Your task to perform on an android device: turn vacation reply on in the gmail app Image 0: 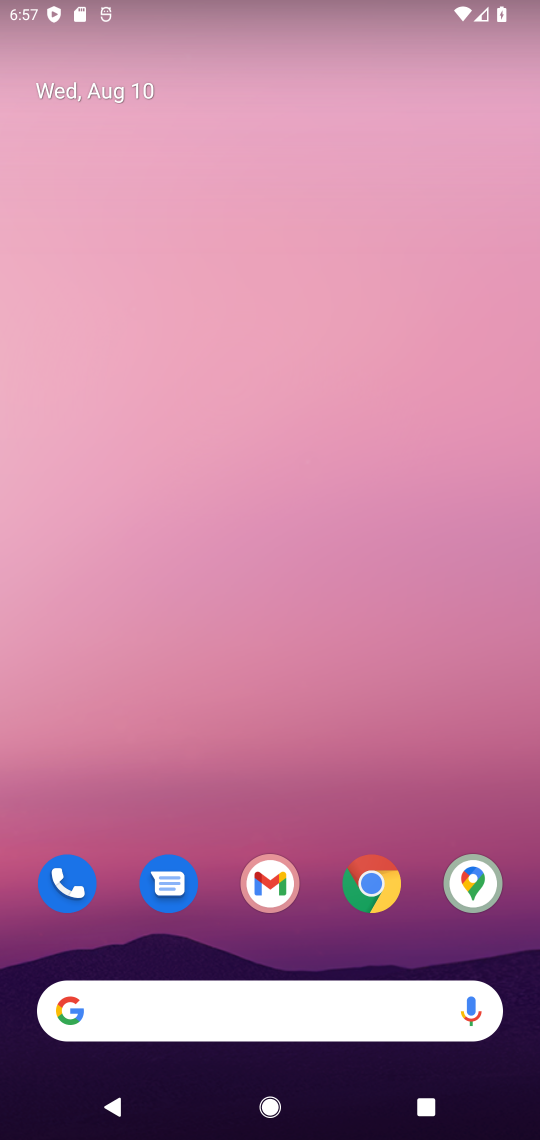
Step 0: click (268, 897)
Your task to perform on an android device: turn vacation reply on in the gmail app Image 1: 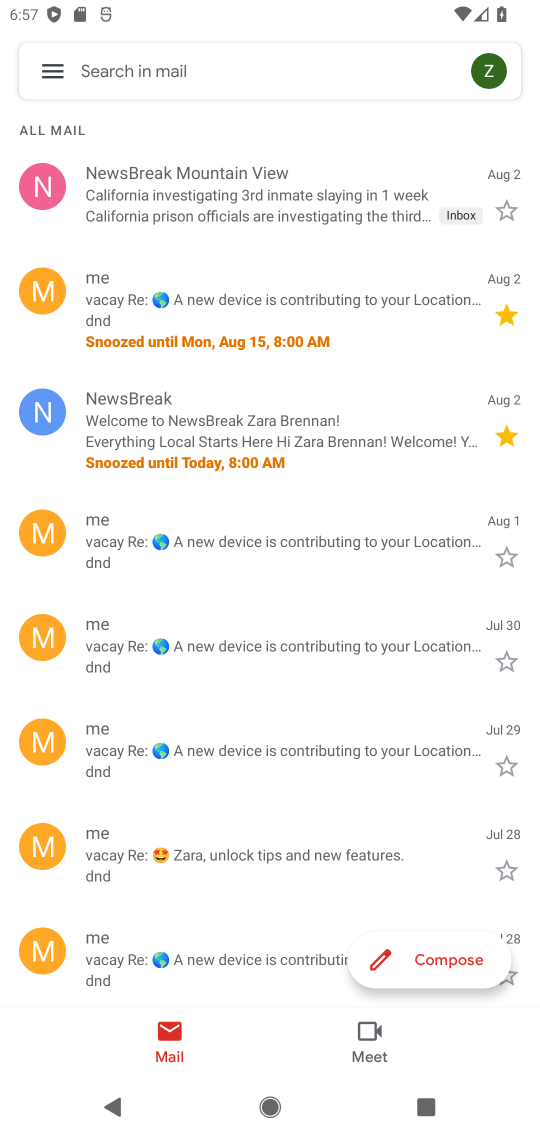
Step 1: click (227, 70)
Your task to perform on an android device: turn vacation reply on in the gmail app Image 2: 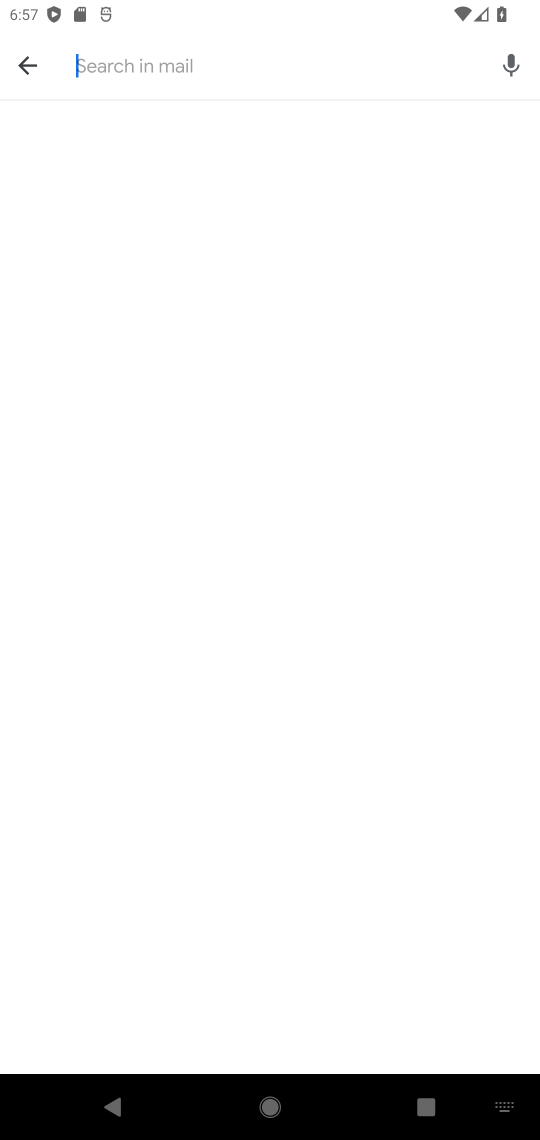
Step 2: click (30, 66)
Your task to perform on an android device: turn vacation reply on in the gmail app Image 3: 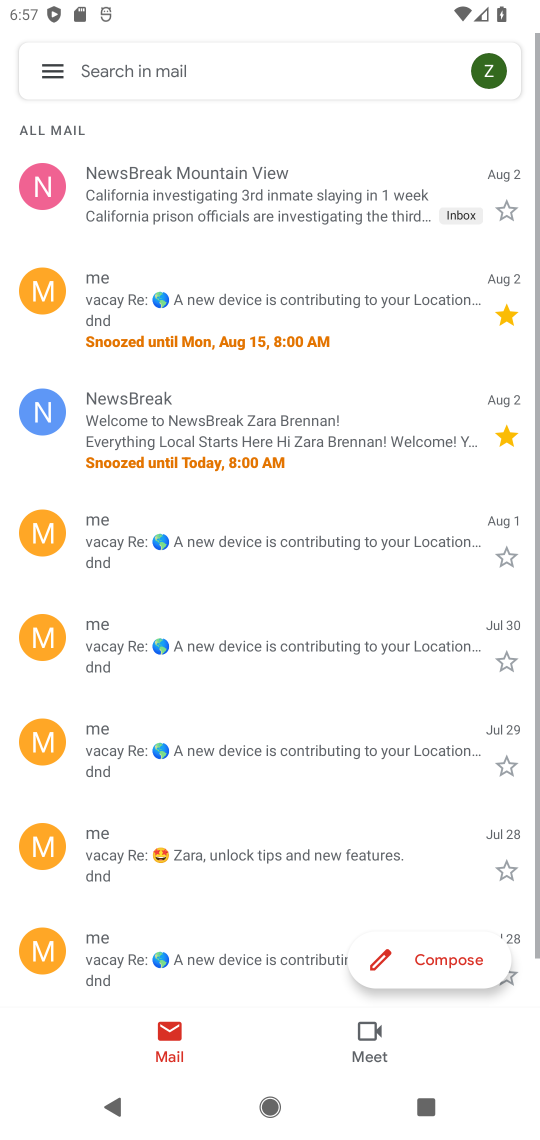
Step 3: click (30, 66)
Your task to perform on an android device: turn vacation reply on in the gmail app Image 4: 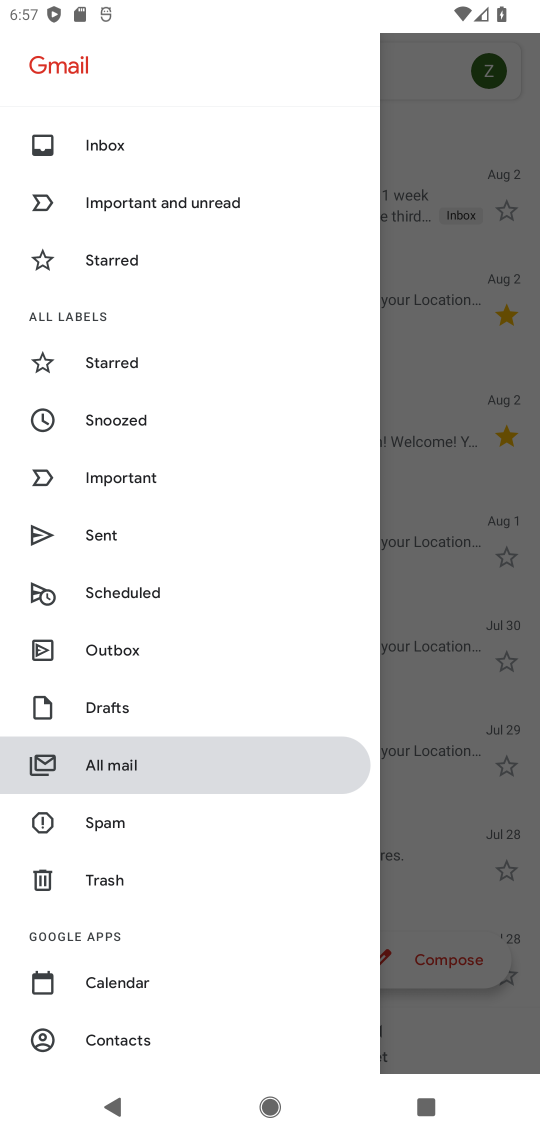
Step 4: drag from (188, 1027) to (212, 646)
Your task to perform on an android device: turn vacation reply on in the gmail app Image 5: 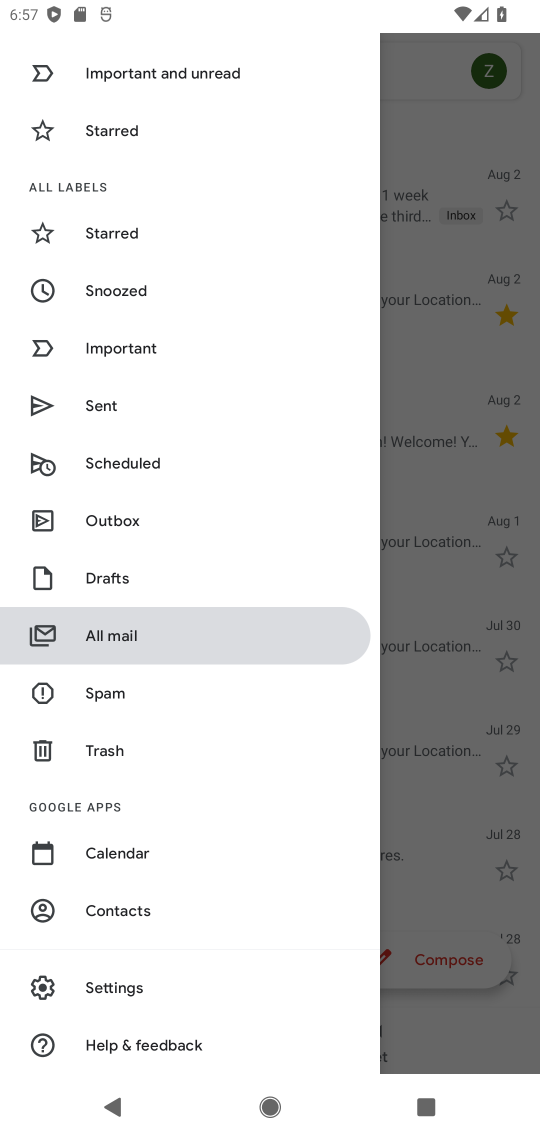
Step 5: click (146, 989)
Your task to perform on an android device: turn vacation reply on in the gmail app Image 6: 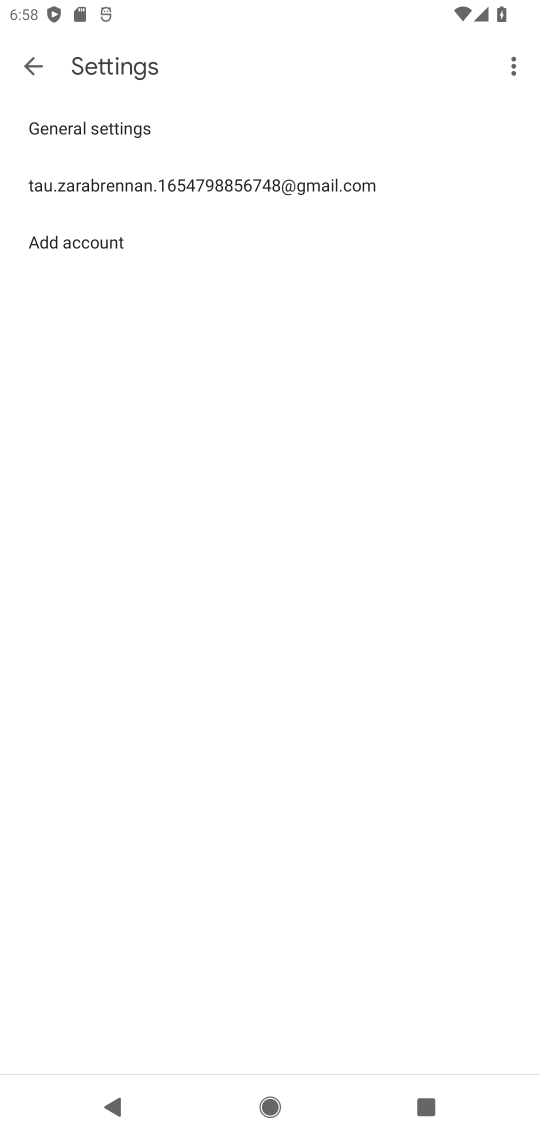
Step 6: click (185, 192)
Your task to perform on an android device: turn vacation reply on in the gmail app Image 7: 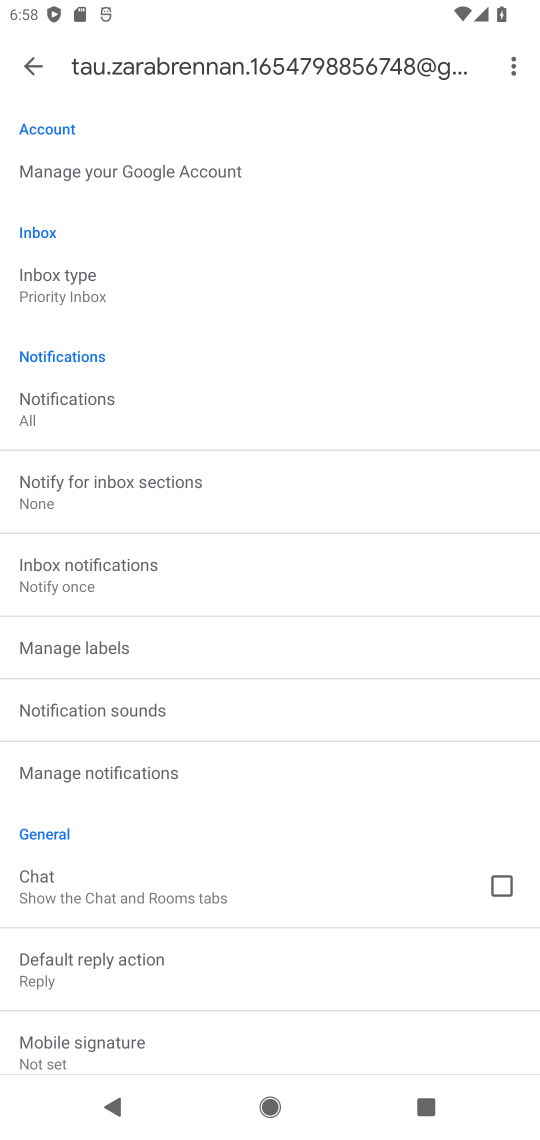
Step 7: drag from (238, 1002) to (48, 209)
Your task to perform on an android device: turn vacation reply on in the gmail app Image 8: 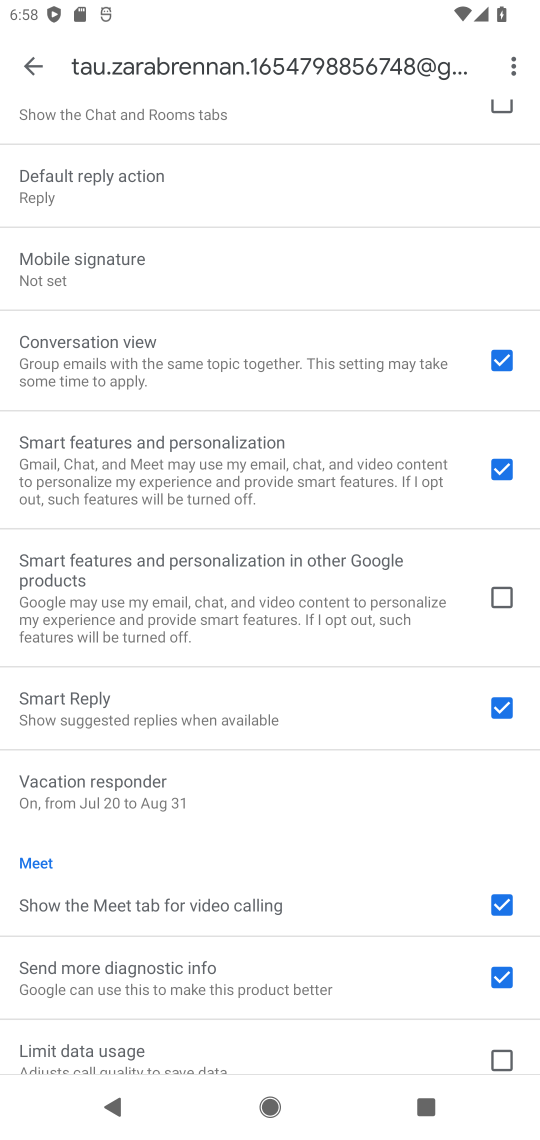
Step 8: drag from (306, 1044) to (325, 577)
Your task to perform on an android device: turn vacation reply on in the gmail app Image 9: 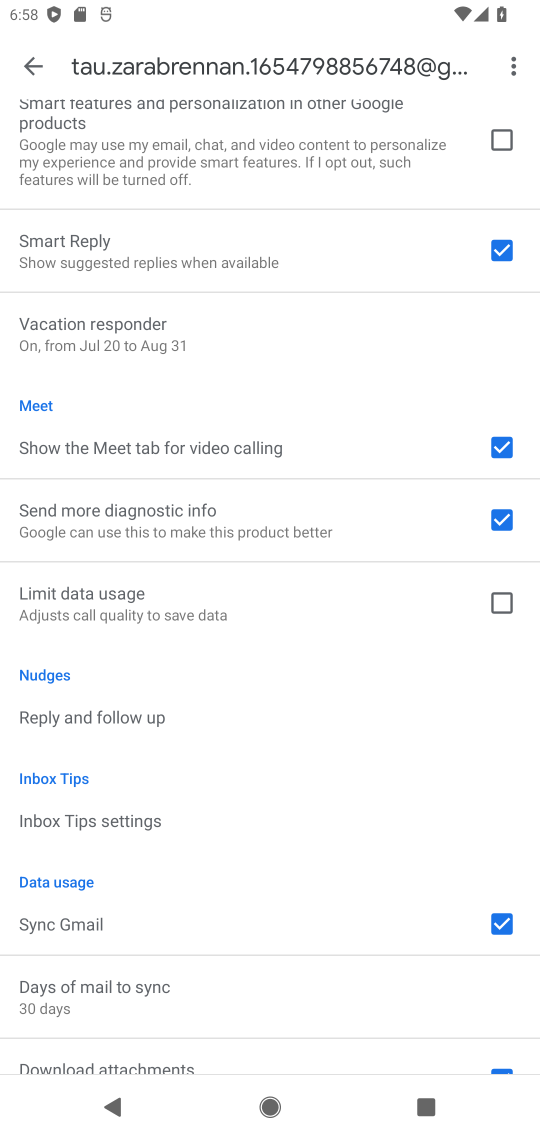
Step 9: click (170, 326)
Your task to perform on an android device: turn vacation reply on in the gmail app Image 10: 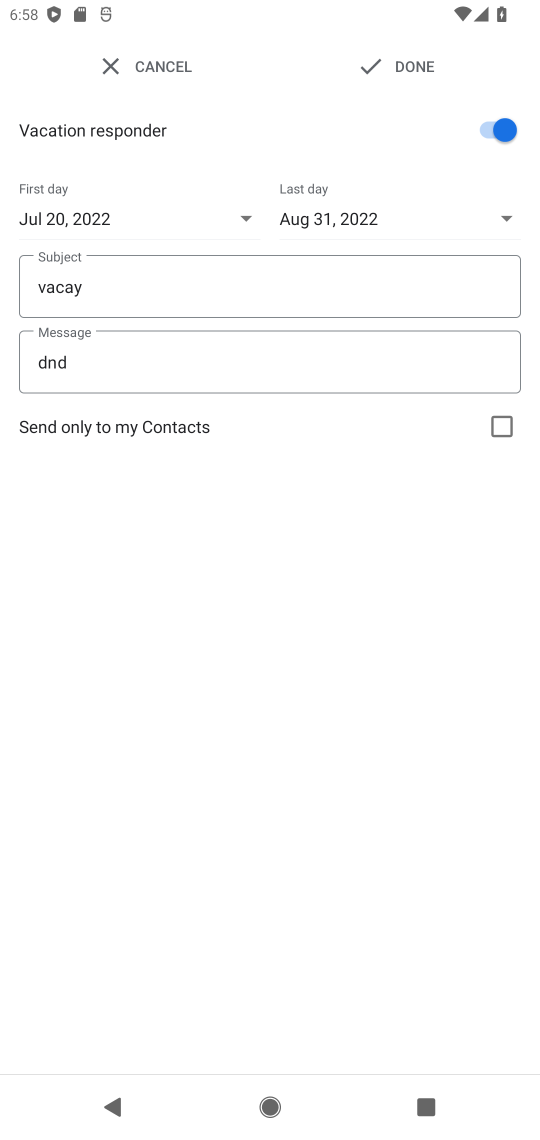
Step 10: click (420, 73)
Your task to perform on an android device: turn vacation reply on in the gmail app Image 11: 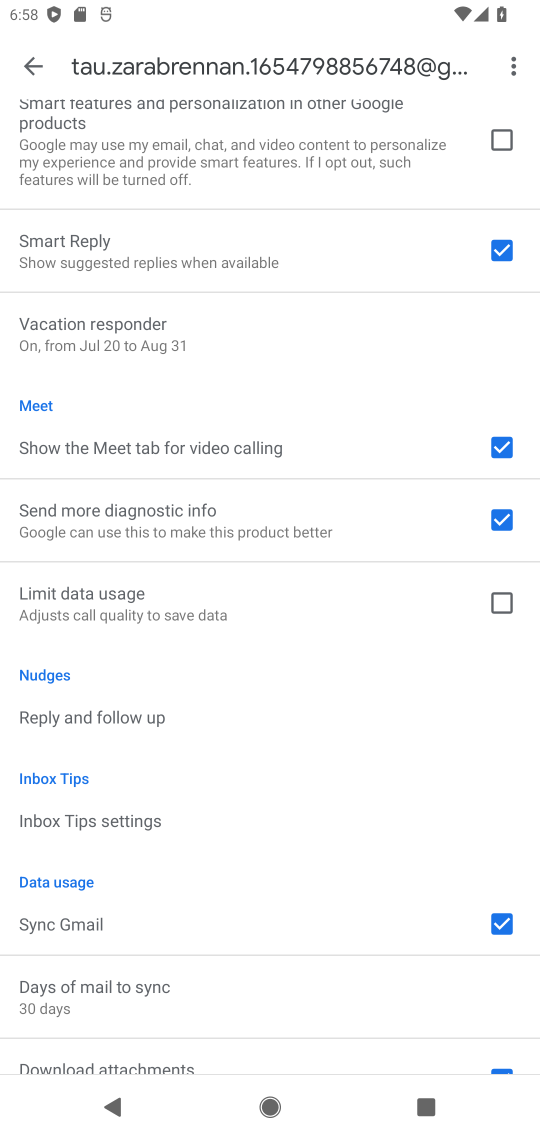
Step 11: task complete